Your task to perform on an android device: turn off javascript in the chrome app Image 0: 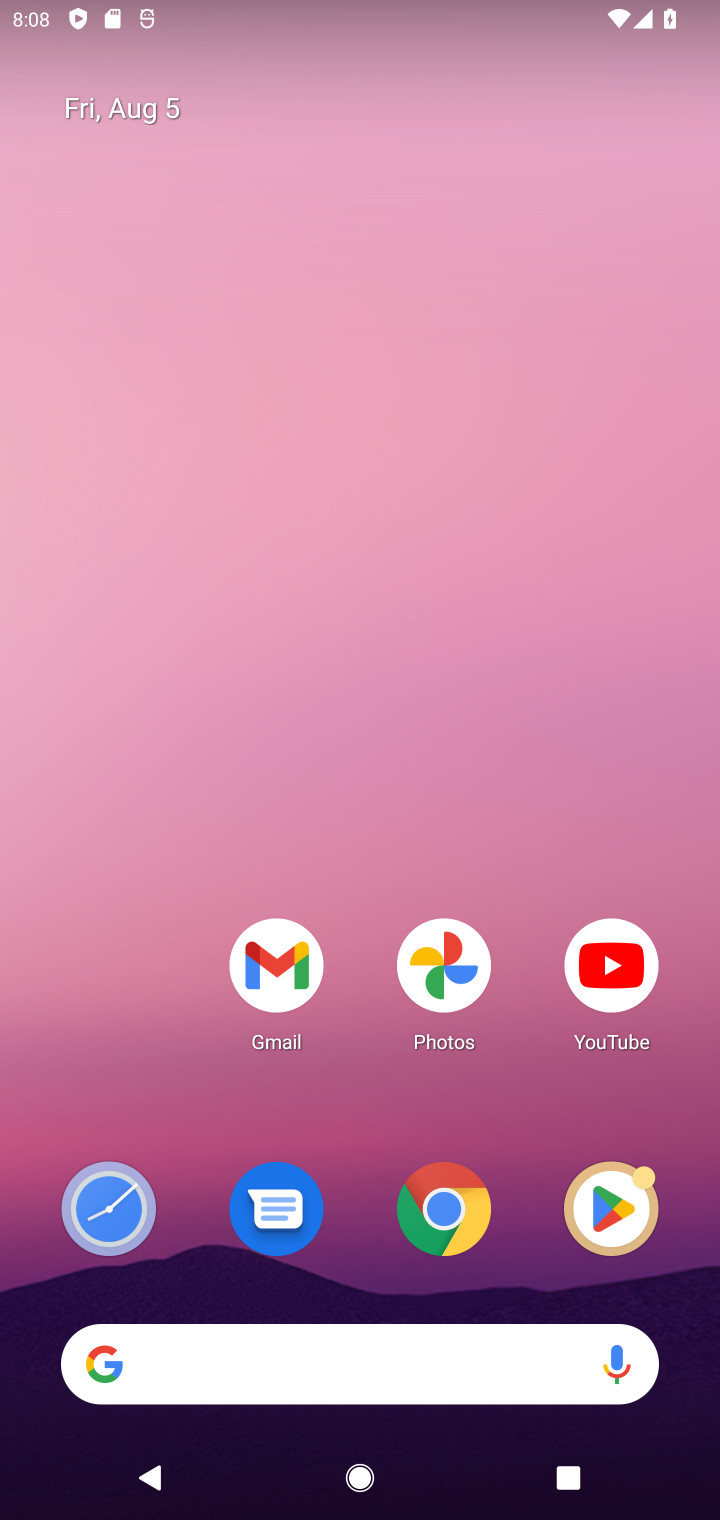
Step 0: click (450, 1206)
Your task to perform on an android device: turn off javascript in the chrome app Image 1: 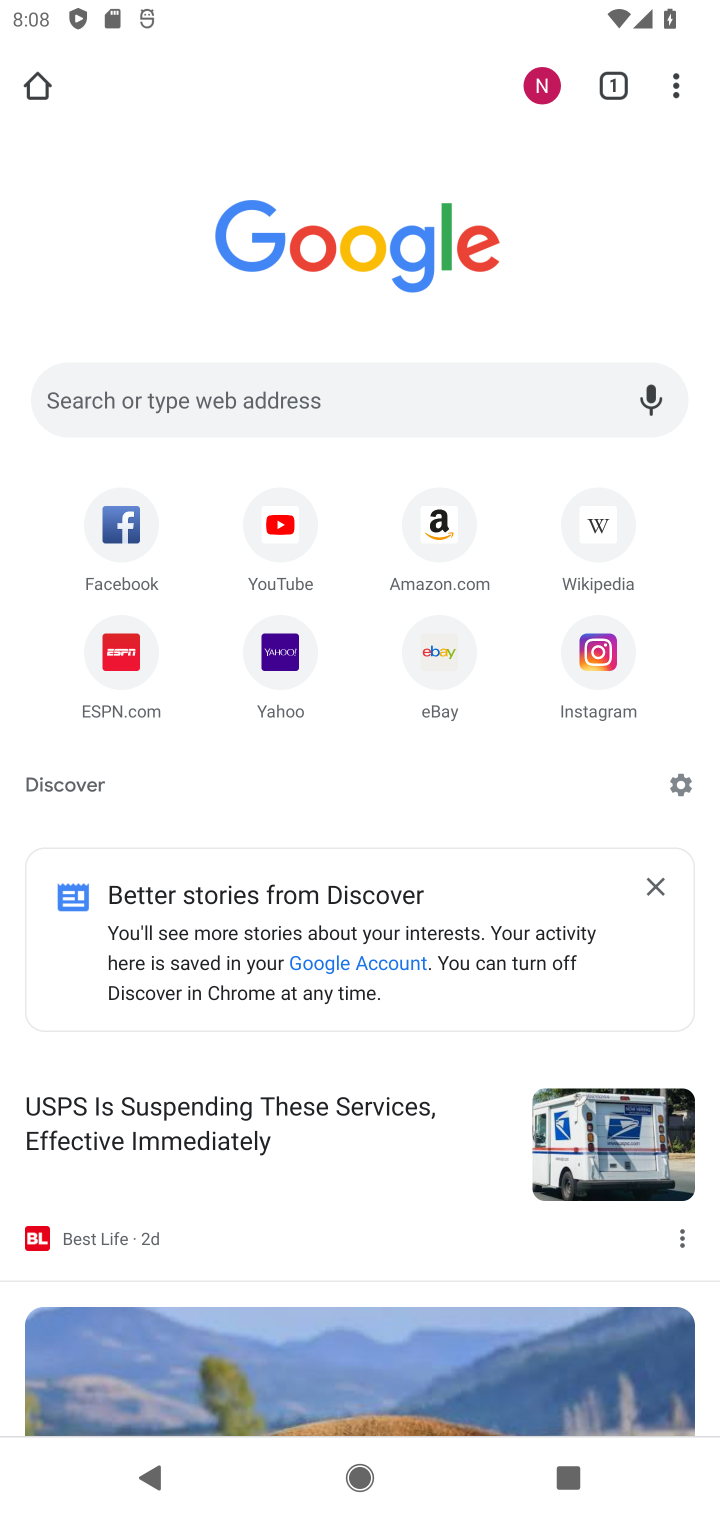
Step 1: drag from (684, 84) to (478, 754)
Your task to perform on an android device: turn off javascript in the chrome app Image 2: 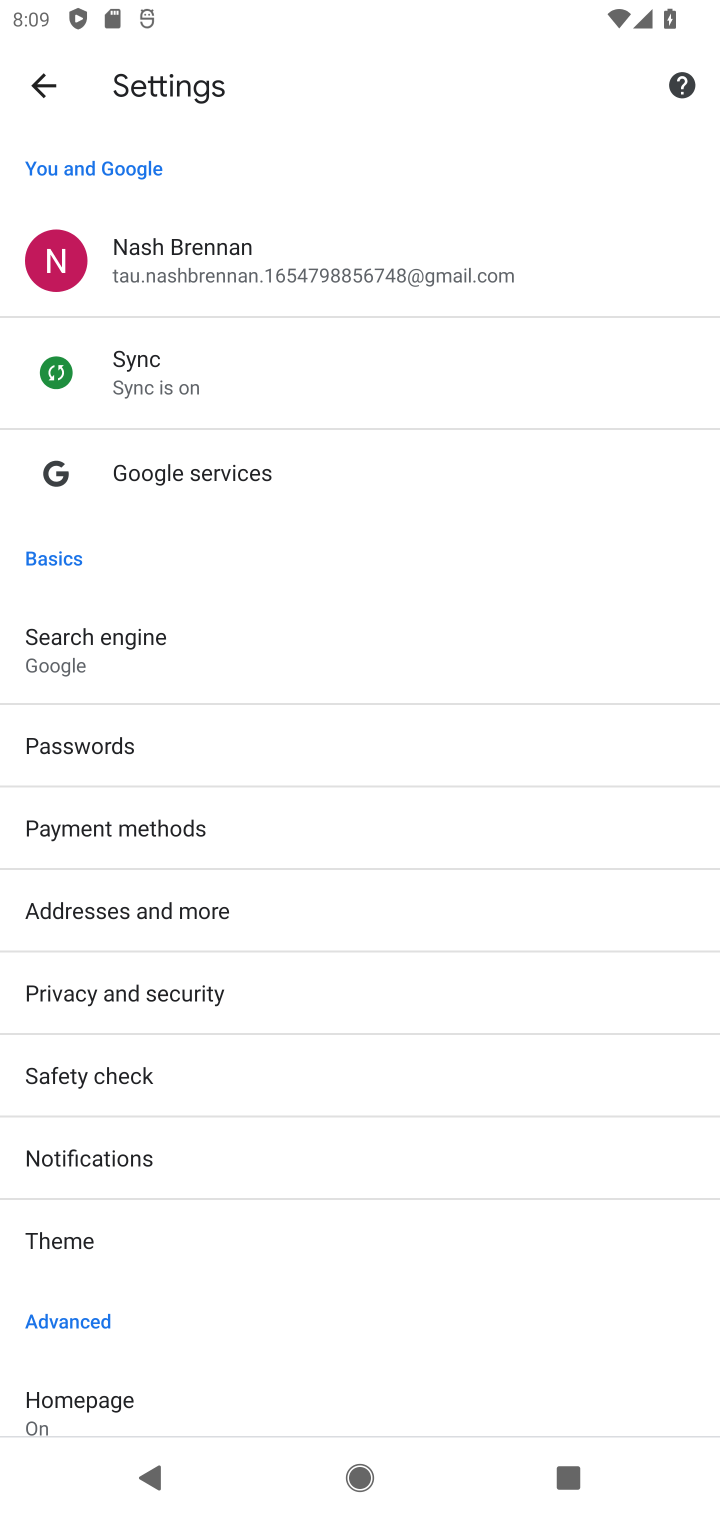
Step 2: drag from (167, 1289) to (410, 524)
Your task to perform on an android device: turn off javascript in the chrome app Image 3: 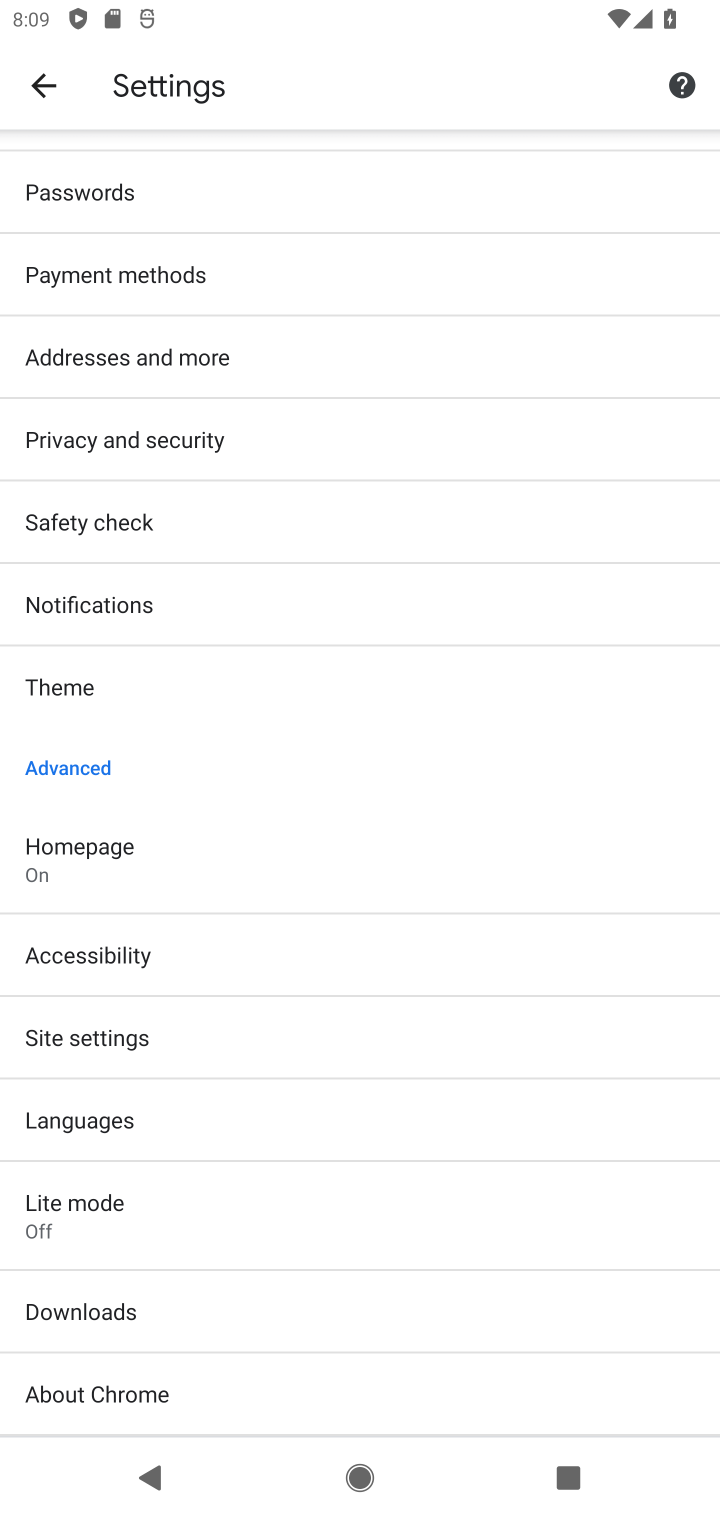
Step 3: click (103, 1045)
Your task to perform on an android device: turn off javascript in the chrome app Image 4: 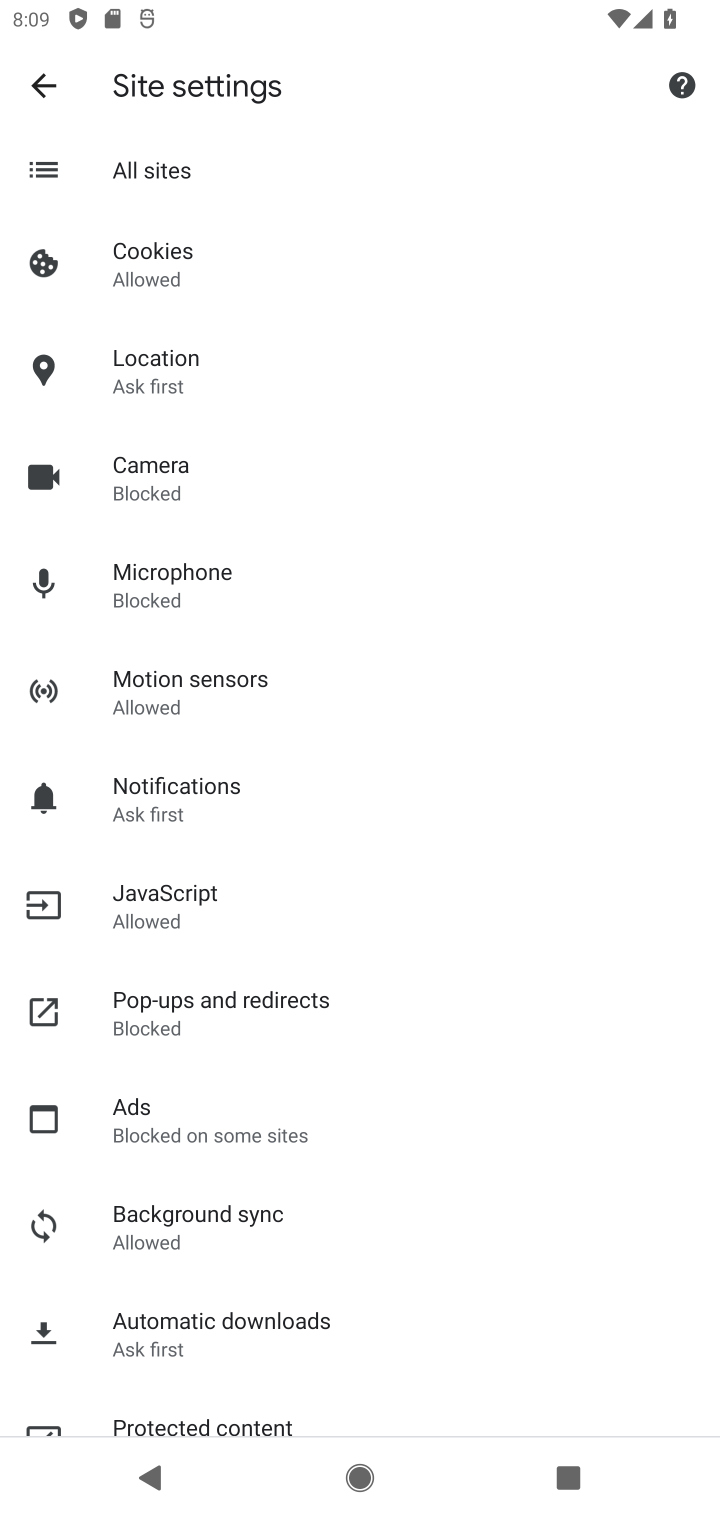
Step 4: click (132, 922)
Your task to perform on an android device: turn off javascript in the chrome app Image 5: 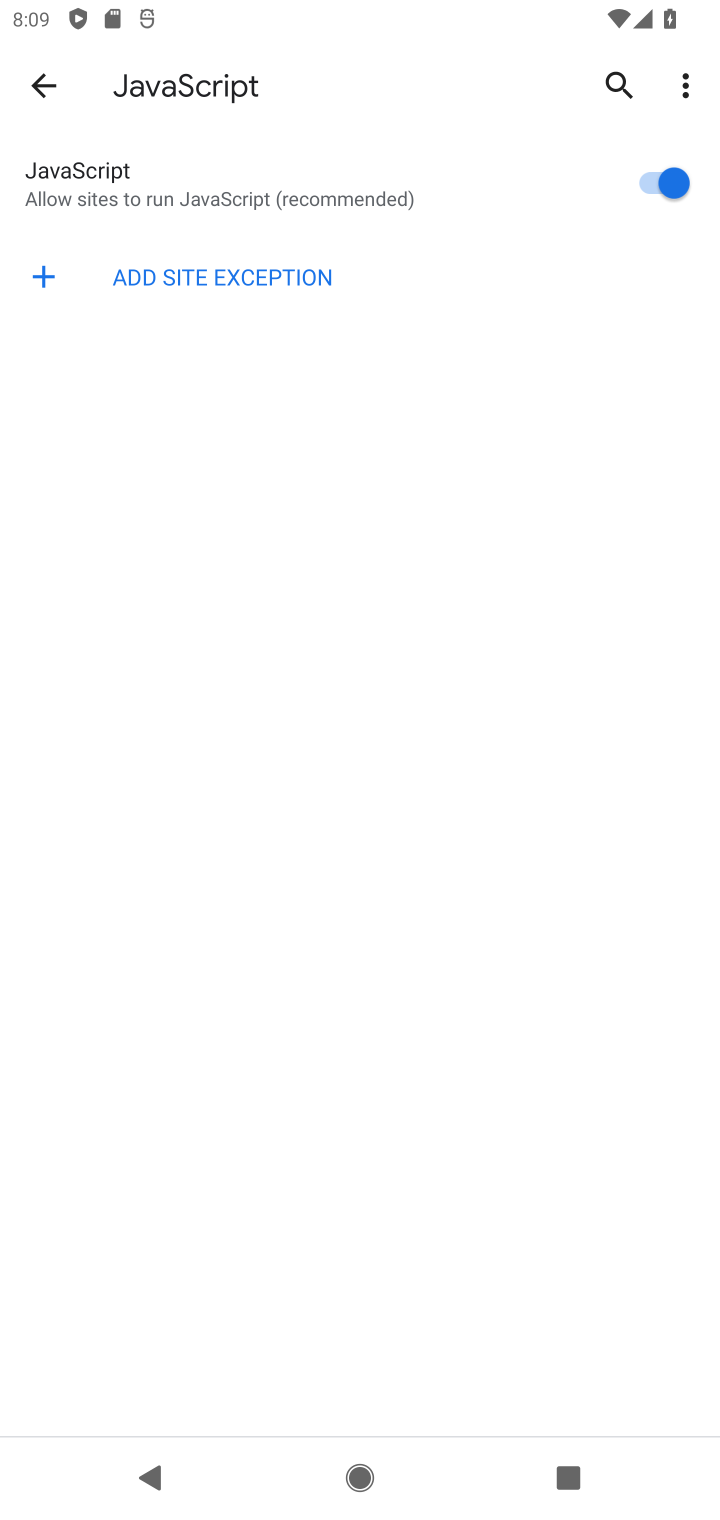
Step 5: click (649, 189)
Your task to perform on an android device: turn off javascript in the chrome app Image 6: 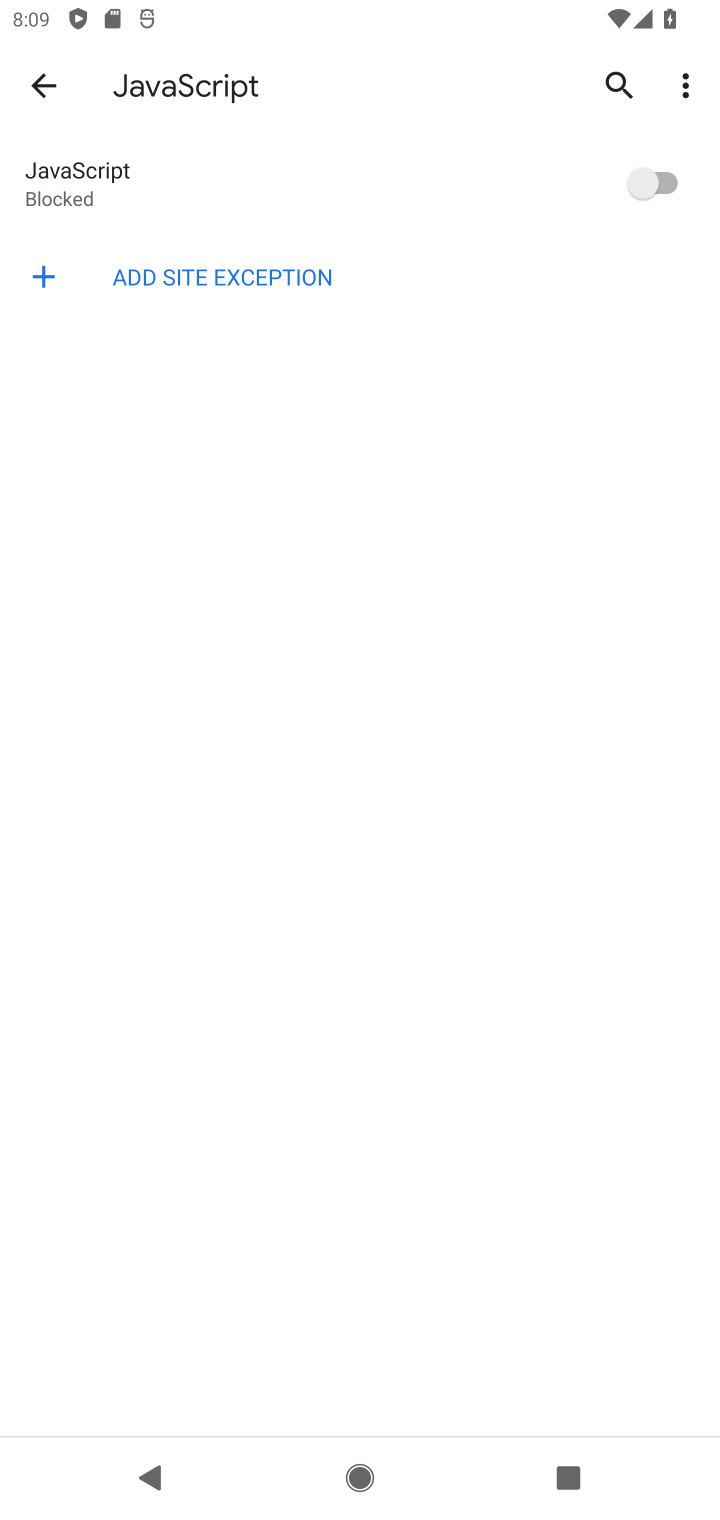
Step 6: task complete